Your task to perform on an android device: Open Yahoo.com Image 0: 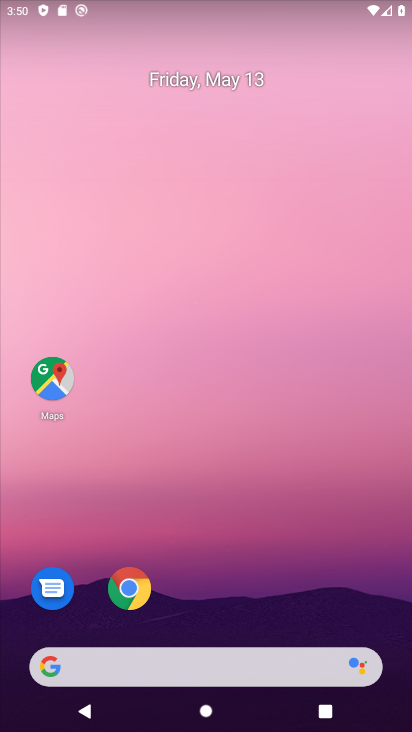
Step 0: click (136, 585)
Your task to perform on an android device: Open Yahoo.com Image 1: 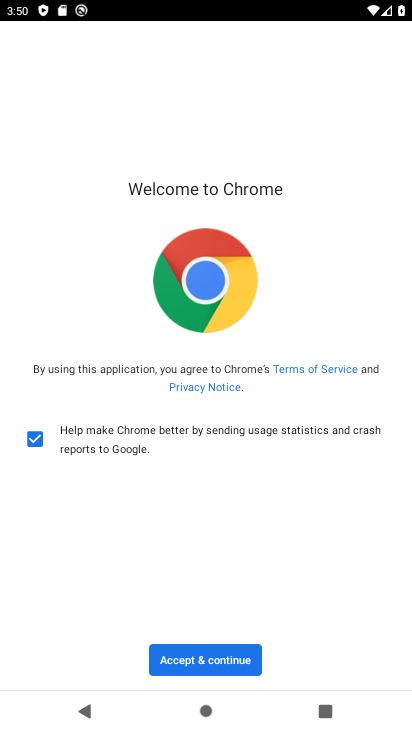
Step 1: click (213, 661)
Your task to perform on an android device: Open Yahoo.com Image 2: 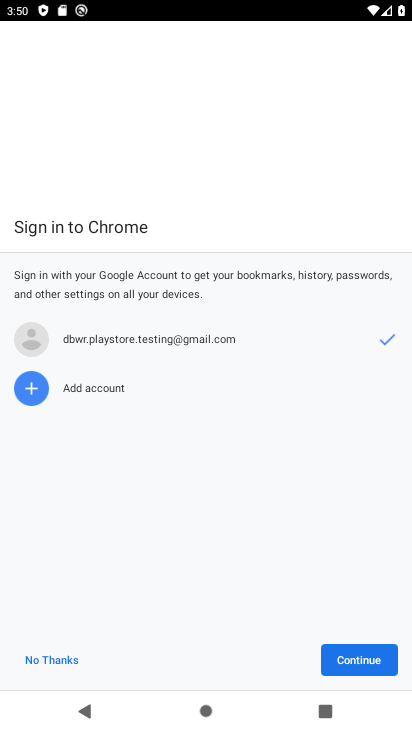
Step 2: click (359, 661)
Your task to perform on an android device: Open Yahoo.com Image 3: 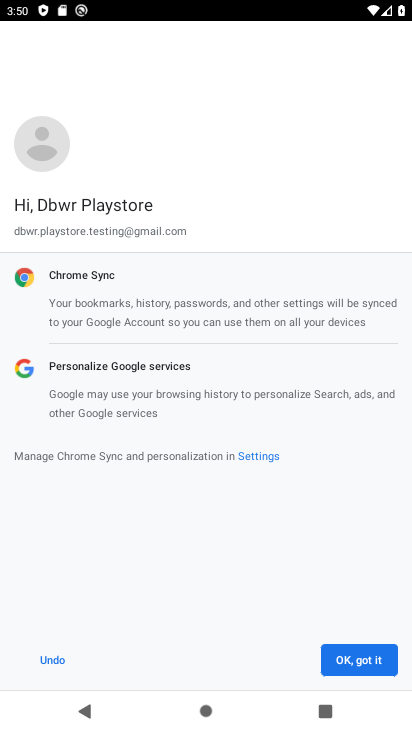
Step 3: click (359, 661)
Your task to perform on an android device: Open Yahoo.com Image 4: 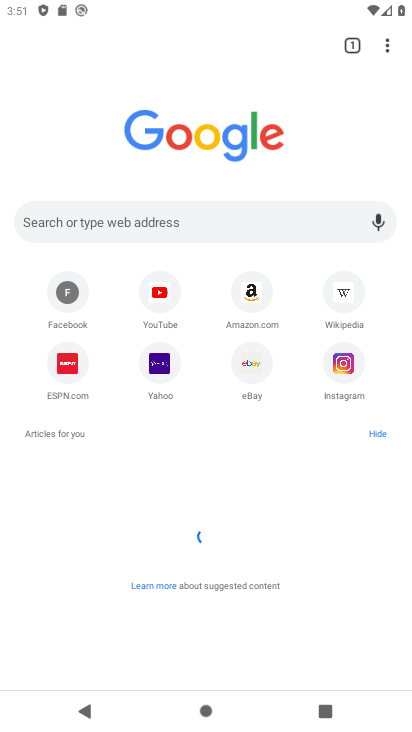
Step 4: click (168, 365)
Your task to perform on an android device: Open Yahoo.com Image 5: 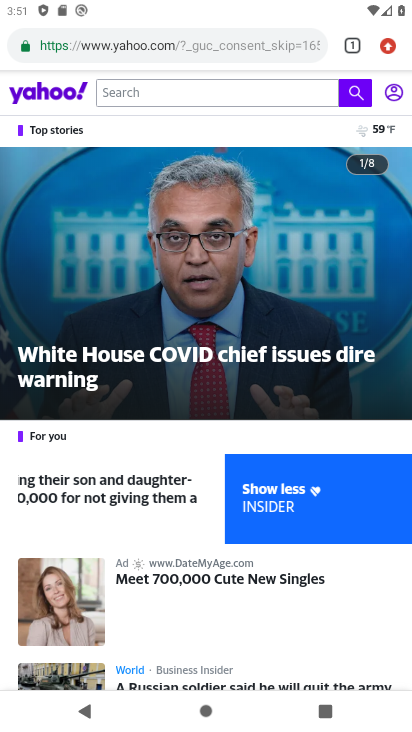
Step 5: task complete